Your task to perform on an android device: turn off wifi Image 0: 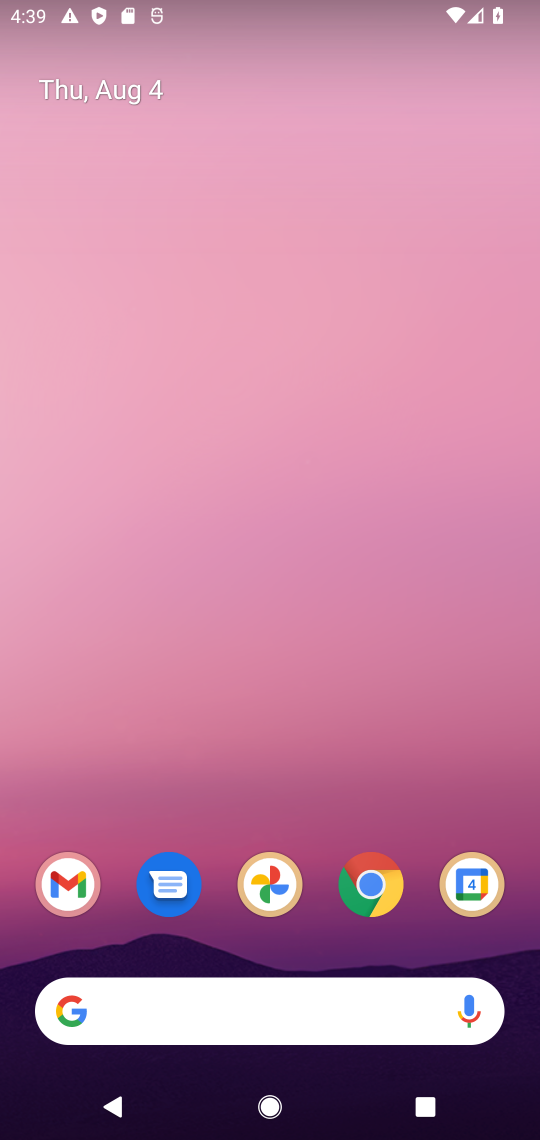
Step 0: drag from (415, 7) to (400, 843)
Your task to perform on an android device: turn off wifi Image 1: 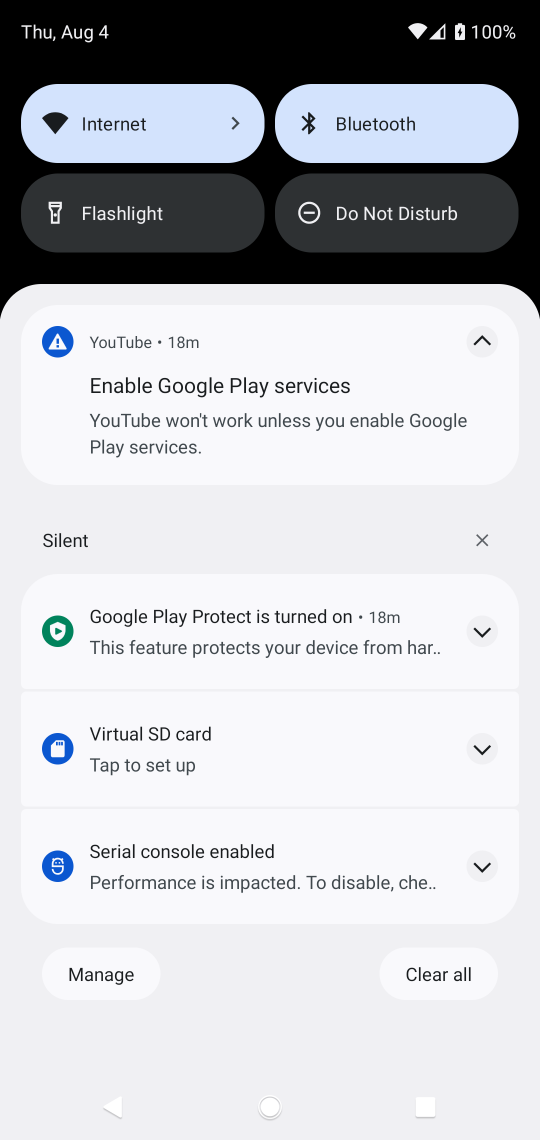
Step 1: click (81, 124)
Your task to perform on an android device: turn off wifi Image 2: 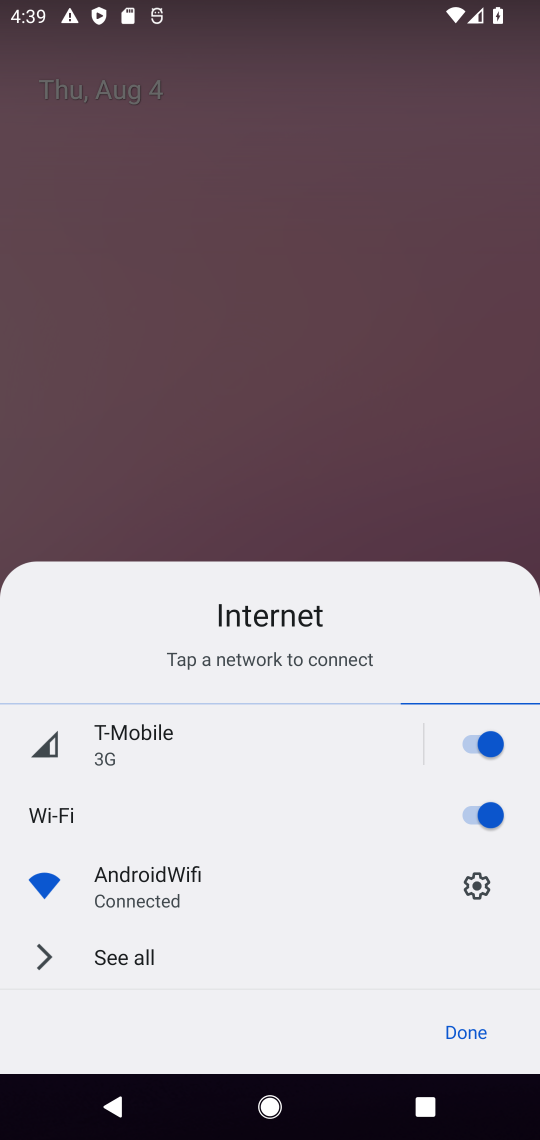
Step 2: click (498, 814)
Your task to perform on an android device: turn off wifi Image 3: 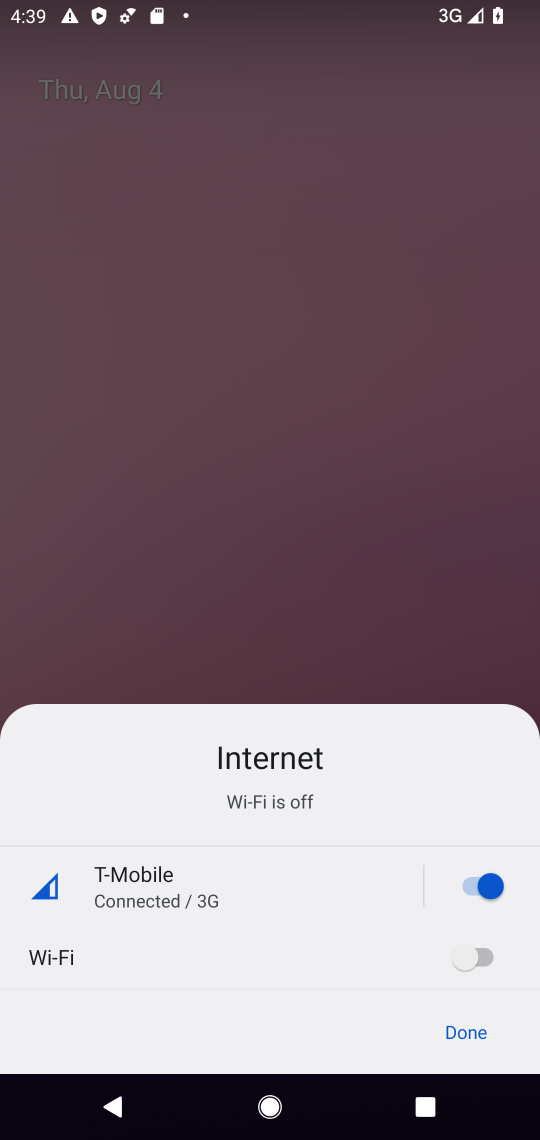
Step 3: task complete